Your task to perform on an android device: Go to privacy settings Image 0: 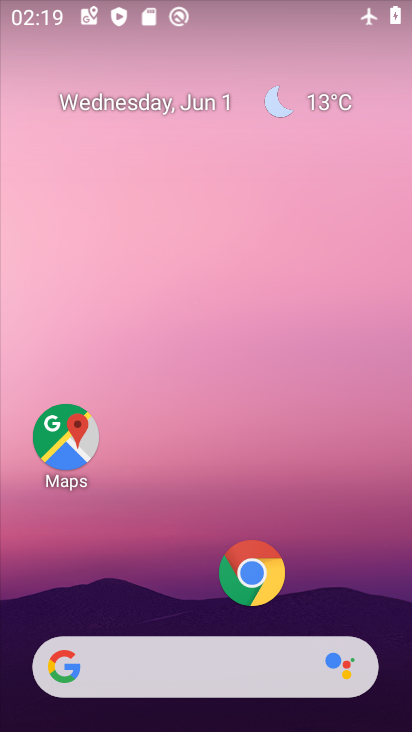
Step 0: drag from (214, 623) to (127, 35)
Your task to perform on an android device: Go to privacy settings Image 1: 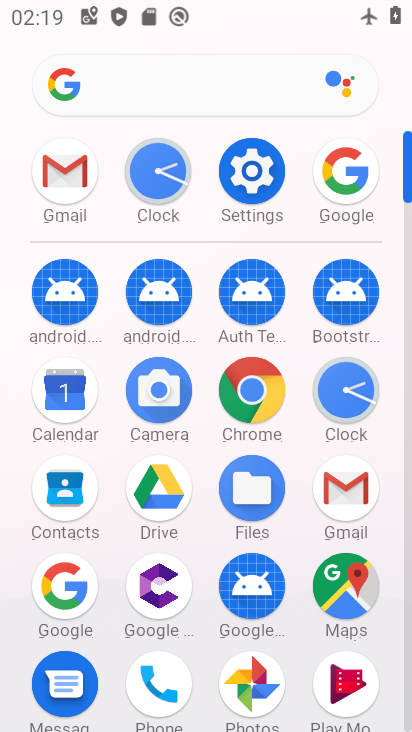
Step 1: click (252, 187)
Your task to perform on an android device: Go to privacy settings Image 2: 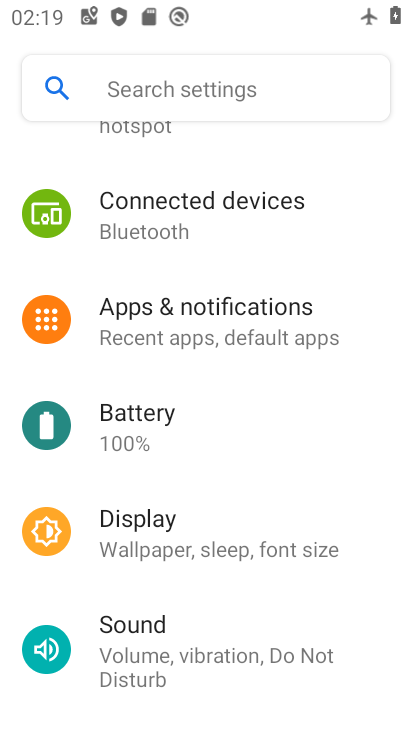
Step 2: drag from (198, 310) to (79, 12)
Your task to perform on an android device: Go to privacy settings Image 3: 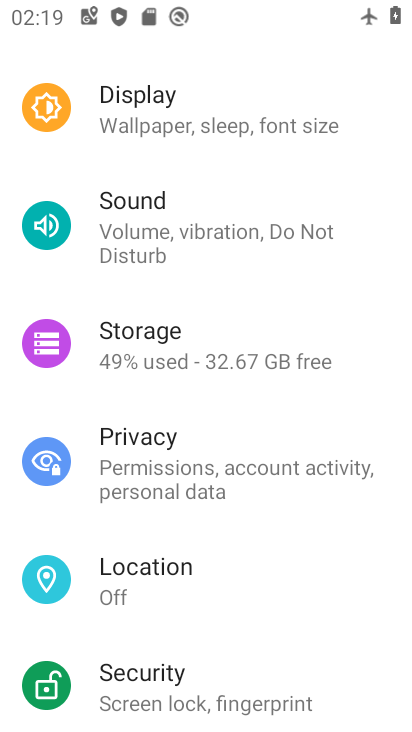
Step 3: click (151, 441)
Your task to perform on an android device: Go to privacy settings Image 4: 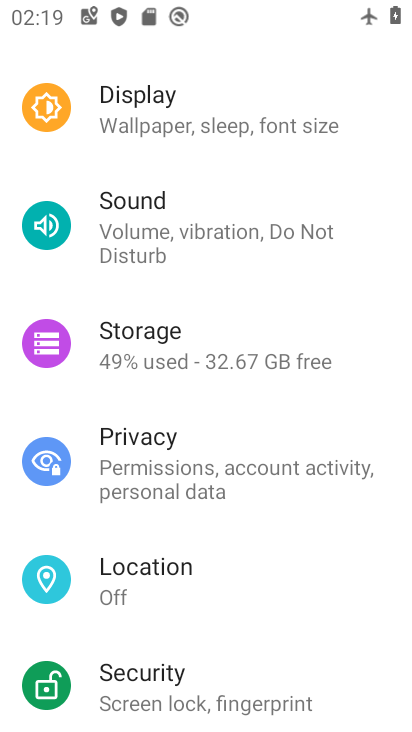
Step 4: task complete